Your task to perform on an android device: turn on wifi Image 0: 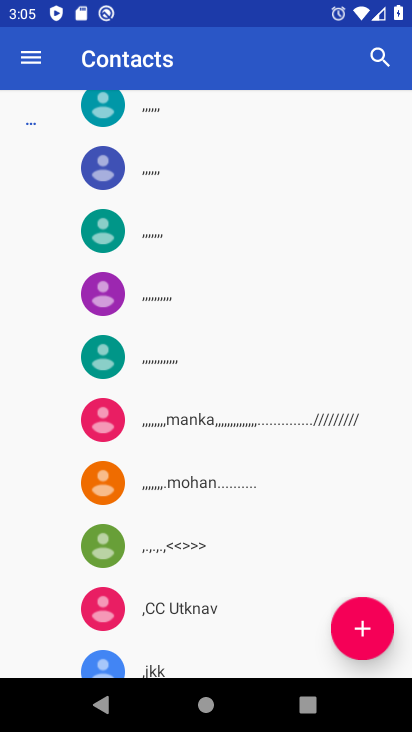
Step 0: press home button
Your task to perform on an android device: turn on wifi Image 1: 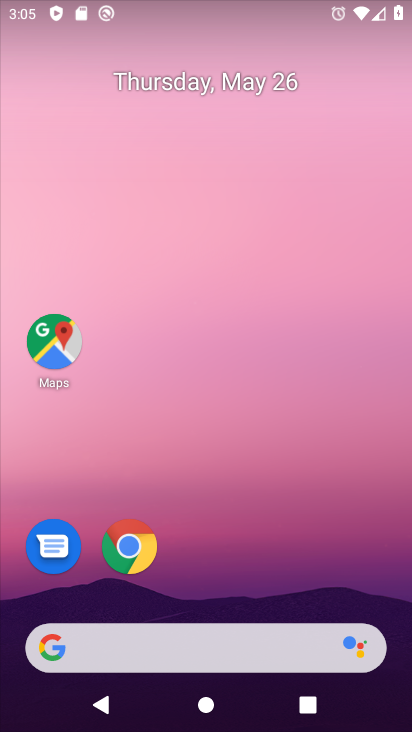
Step 1: drag from (373, 450) to (343, 188)
Your task to perform on an android device: turn on wifi Image 2: 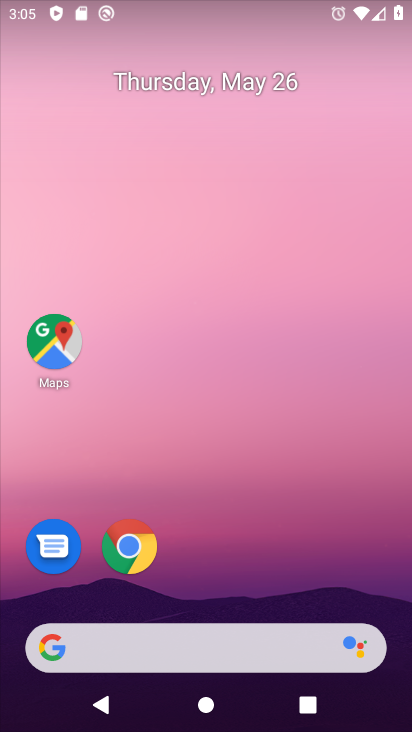
Step 2: drag from (392, 499) to (343, 235)
Your task to perform on an android device: turn on wifi Image 3: 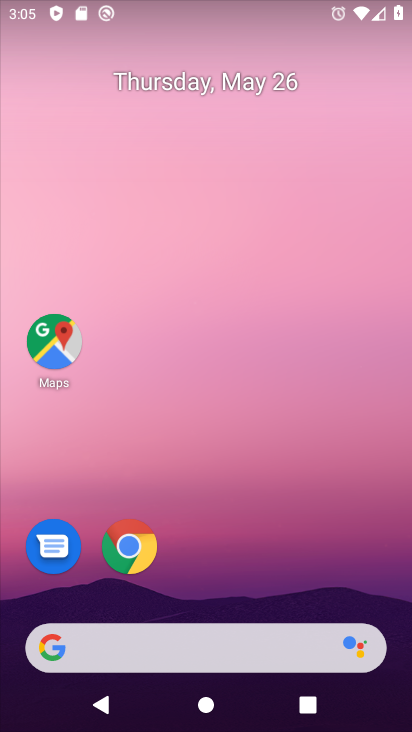
Step 3: drag from (387, 656) to (342, 162)
Your task to perform on an android device: turn on wifi Image 4: 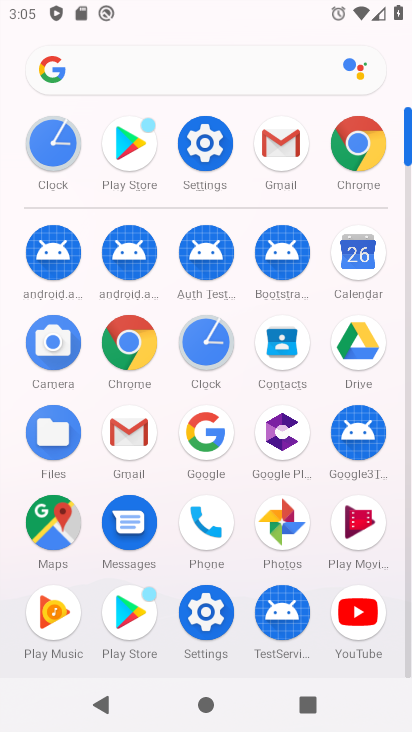
Step 4: click (203, 159)
Your task to perform on an android device: turn on wifi Image 5: 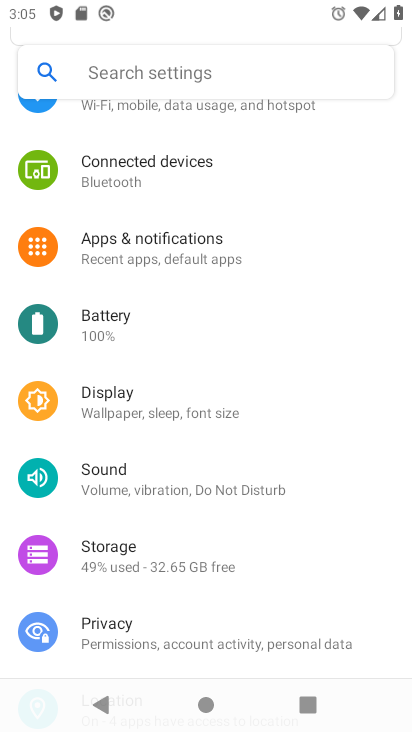
Step 5: drag from (310, 156) to (326, 544)
Your task to perform on an android device: turn on wifi Image 6: 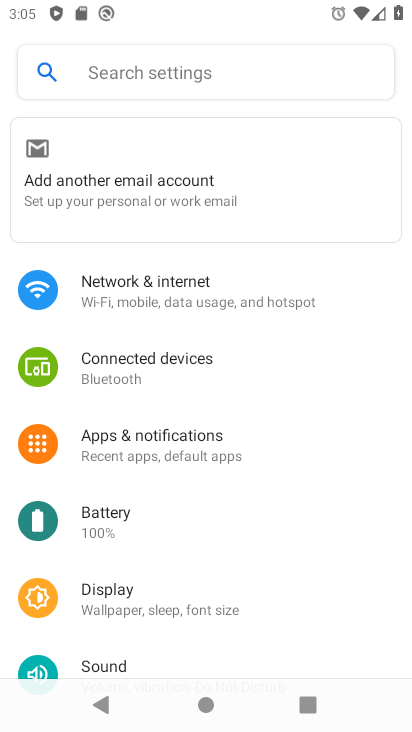
Step 6: click (144, 280)
Your task to perform on an android device: turn on wifi Image 7: 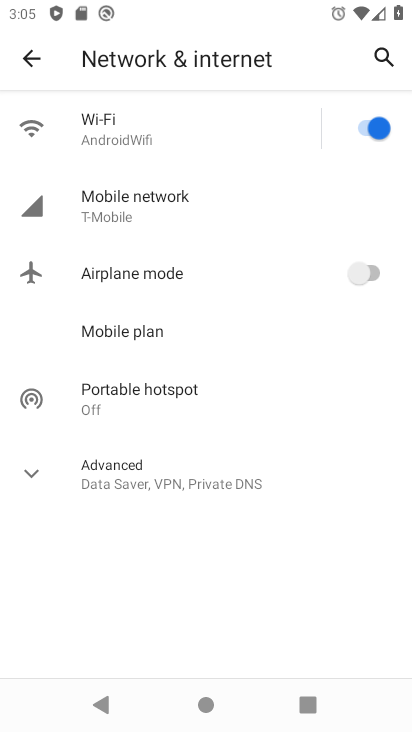
Step 7: task complete